Your task to perform on an android device: turn off smart reply in the gmail app Image 0: 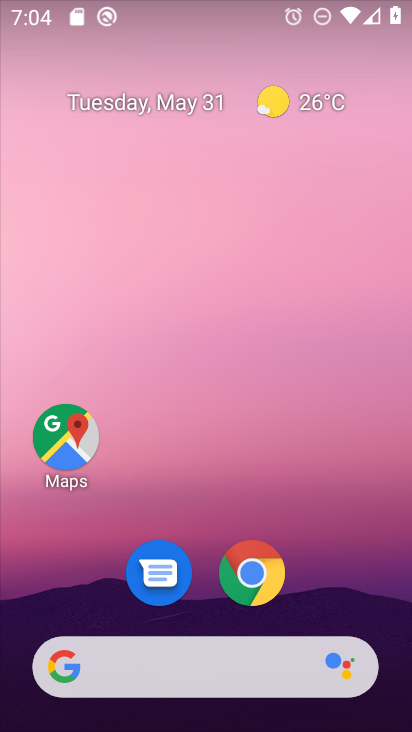
Step 0: drag from (395, 653) to (292, 40)
Your task to perform on an android device: turn off smart reply in the gmail app Image 1: 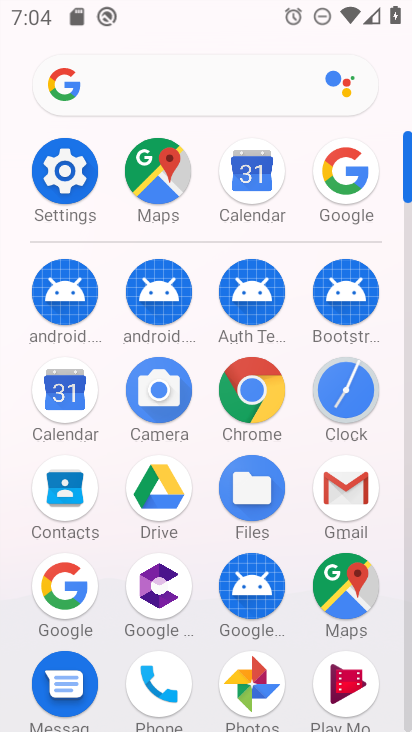
Step 1: click (339, 510)
Your task to perform on an android device: turn off smart reply in the gmail app Image 2: 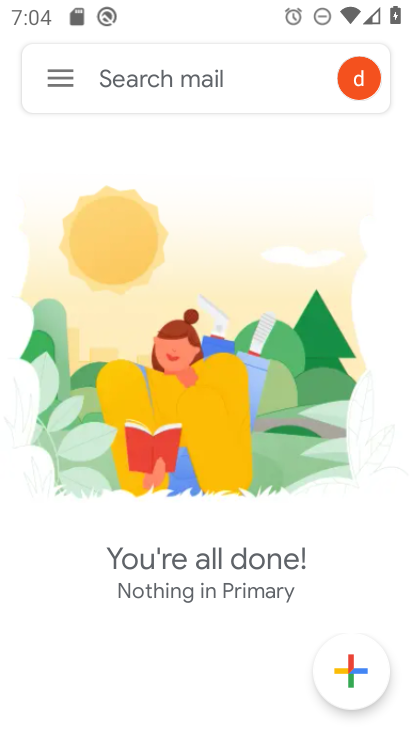
Step 2: click (49, 78)
Your task to perform on an android device: turn off smart reply in the gmail app Image 3: 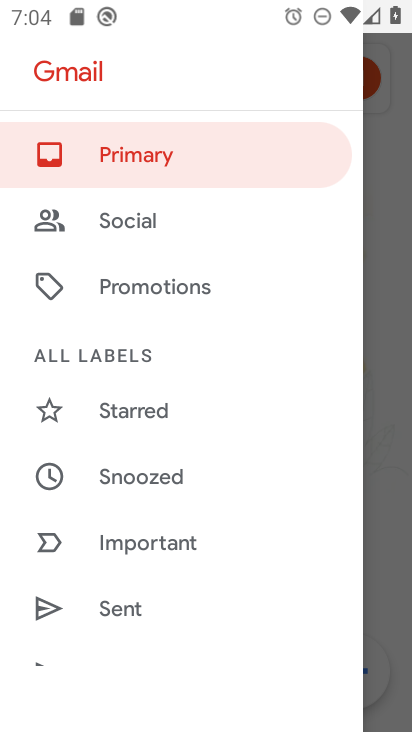
Step 3: drag from (96, 631) to (167, 111)
Your task to perform on an android device: turn off smart reply in the gmail app Image 4: 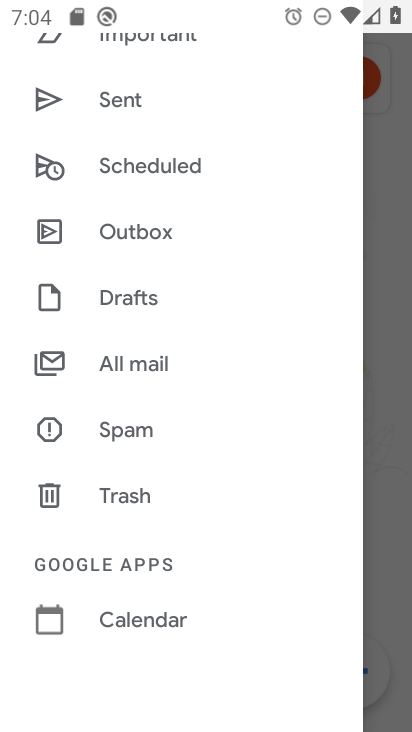
Step 4: drag from (145, 612) to (215, 39)
Your task to perform on an android device: turn off smart reply in the gmail app Image 5: 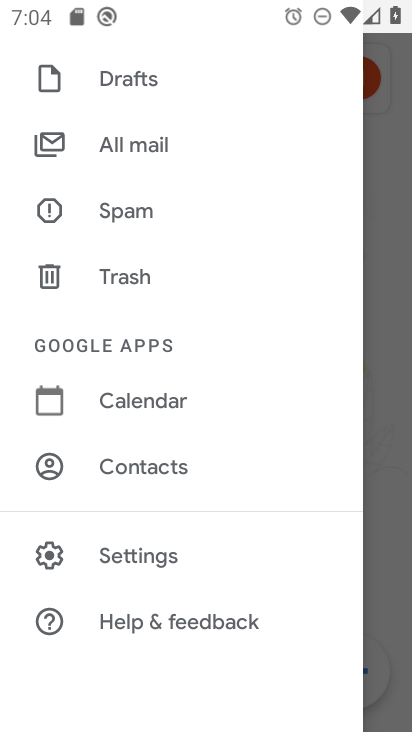
Step 5: click (167, 557)
Your task to perform on an android device: turn off smart reply in the gmail app Image 6: 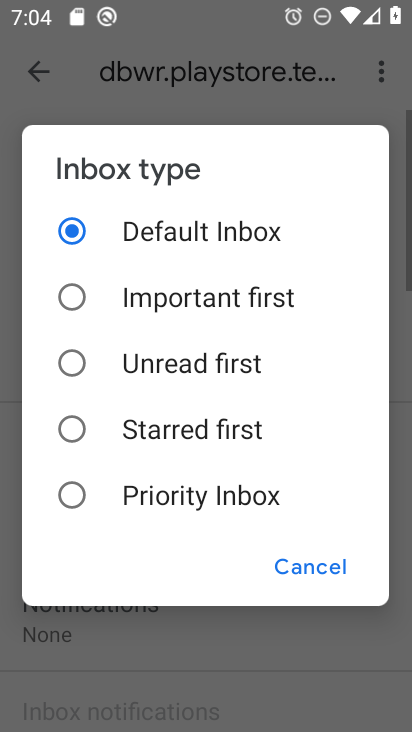
Step 6: click (340, 583)
Your task to perform on an android device: turn off smart reply in the gmail app Image 7: 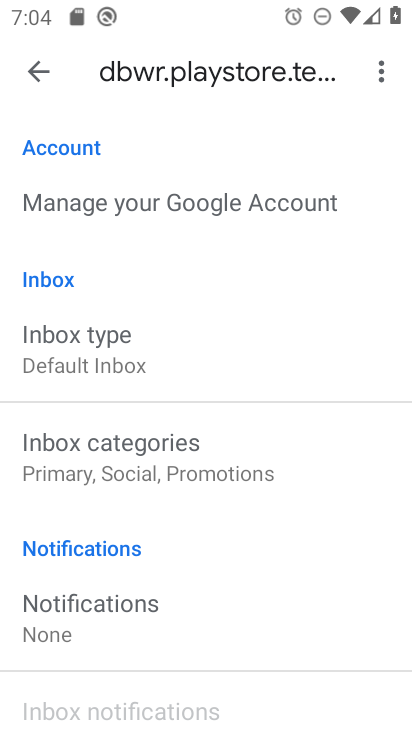
Step 7: drag from (262, 650) to (279, 61)
Your task to perform on an android device: turn off smart reply in the gmail app Image 8: 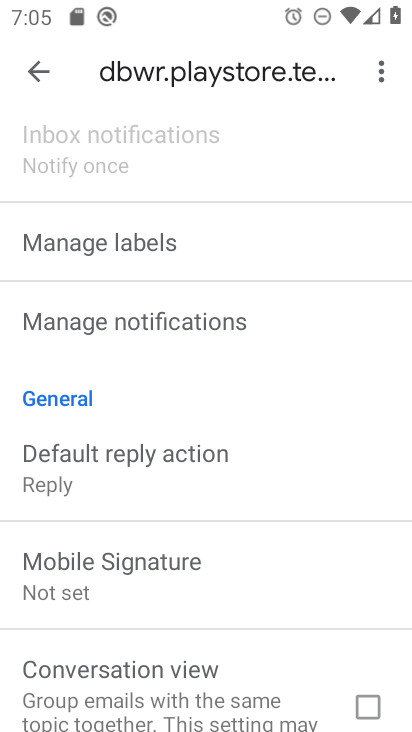
Step 8: drag from (185, 648) to (217, 120)
Your task to perform on an android device: turn off smart reply in the gmail app Image 9: 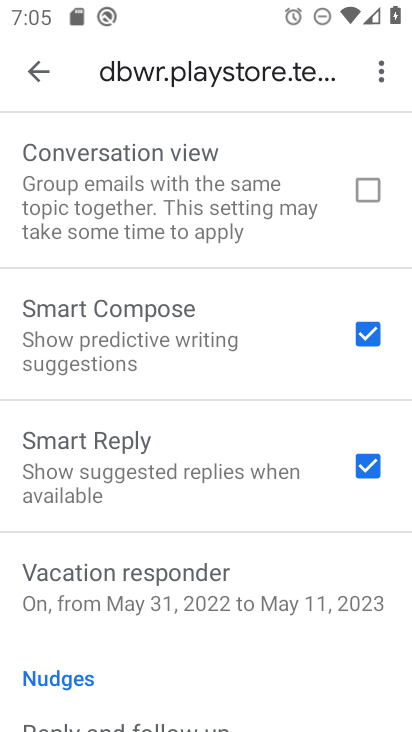
Step 9: click (280, 475)
Your task to perform on an android device: turn off smart reply in the gmail app Image 10: 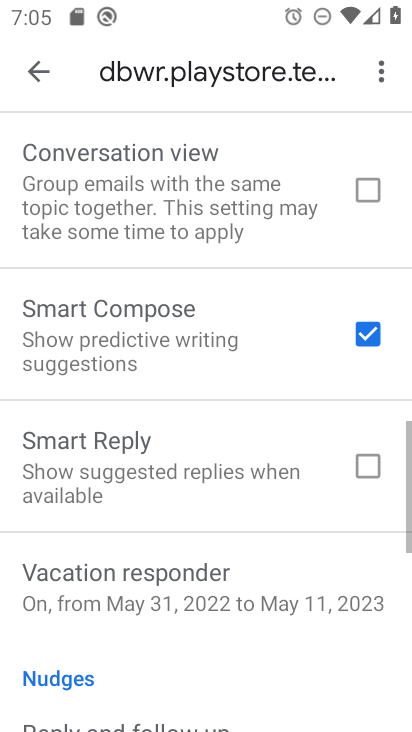
Step 10: task complete